Your task to perform on an android device: uninstall "Microsoft Outlook" Image 0: 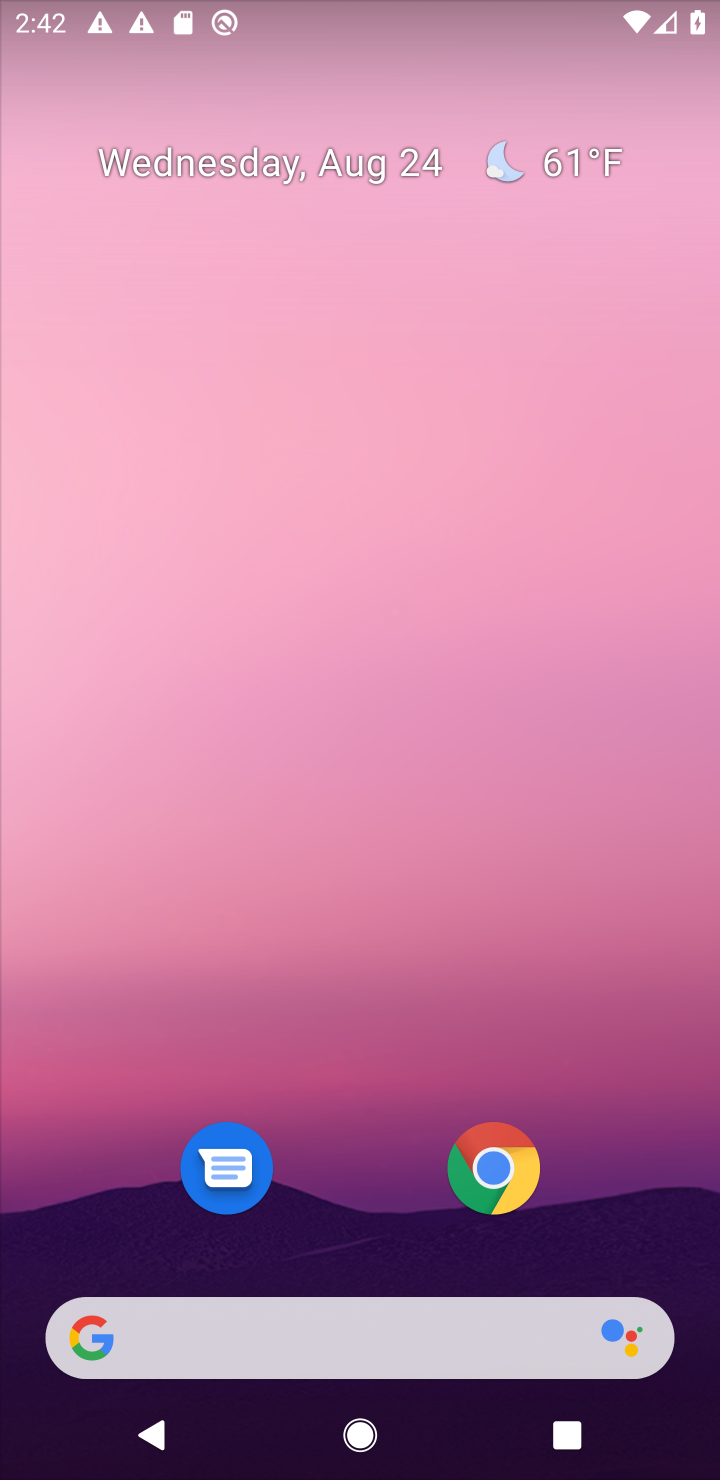
Step 0: drag from (656, 1195) to (567, 194)
Your task to perform on an android device: uninstall "Microsoft Outlook" Image 1: 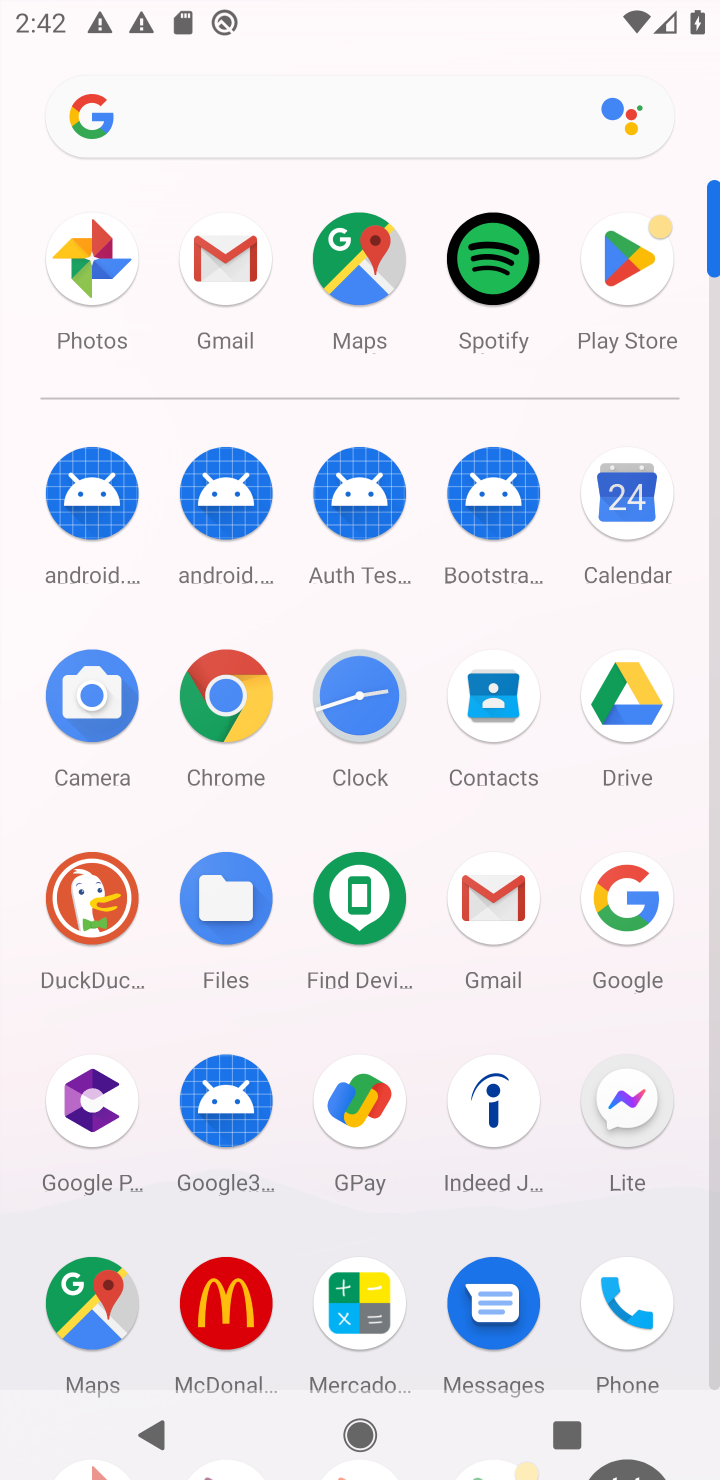
Step 1: click (713, 1301)
Your task to perform on an android device: uninstall "Microsoft Outlook" Image 2: 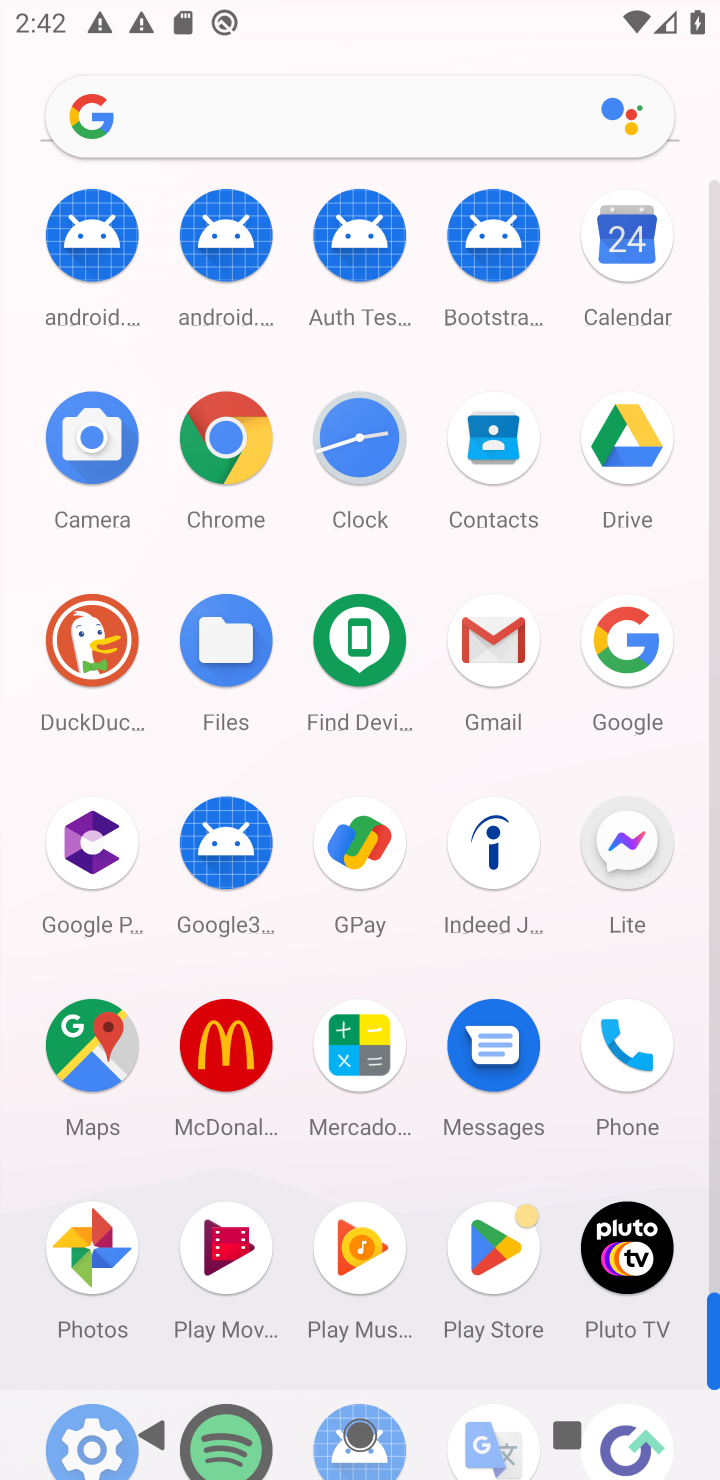
Step 2: click (501, 1241)
Your task to perform on an android device: uninstall "Microsoft Outlook" Image 3: 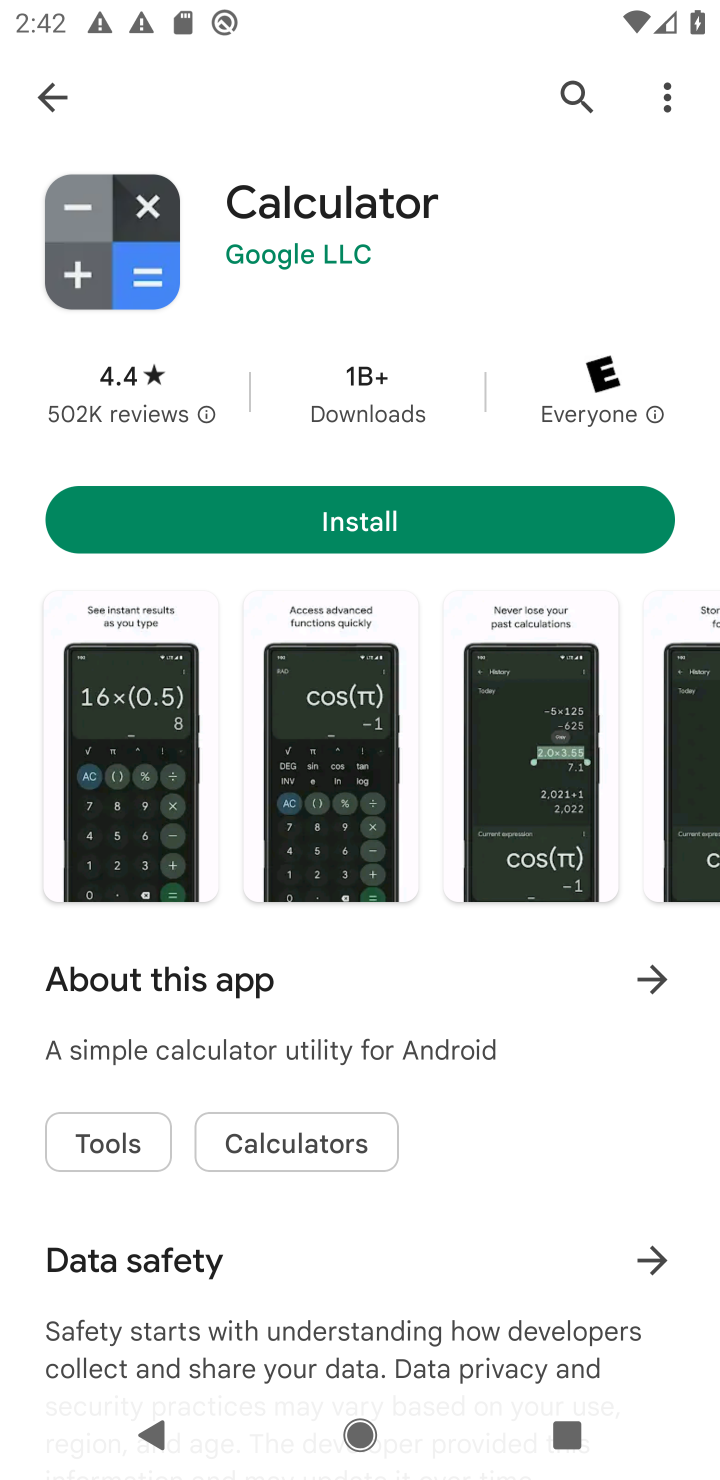
Step 3: click (573, 94)
Your task to perform on an android device: uninstall "Microsoft Outlook" Image 4: 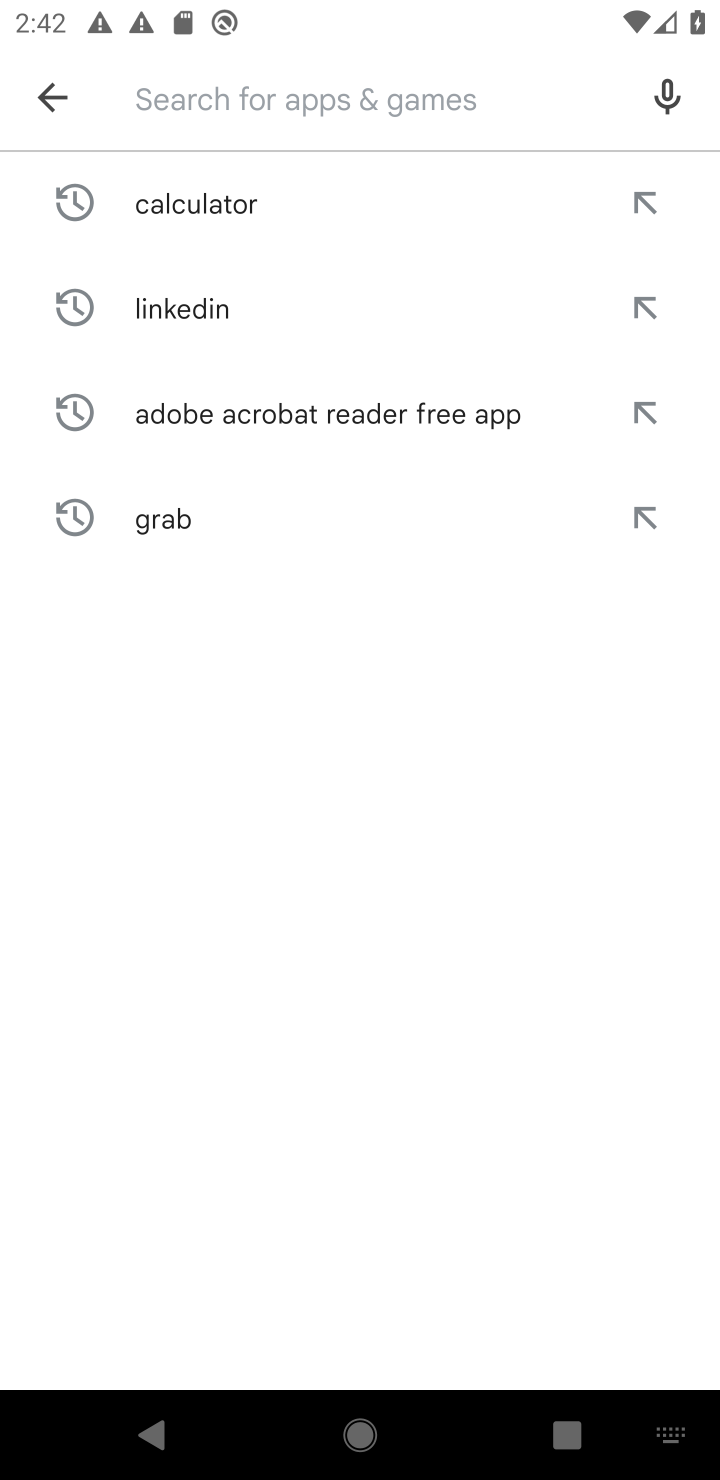
Step 4: type "Microsoft Outlook"
Your task to perform on an android device: uninstall "Microsoft Outlook" Image 5: 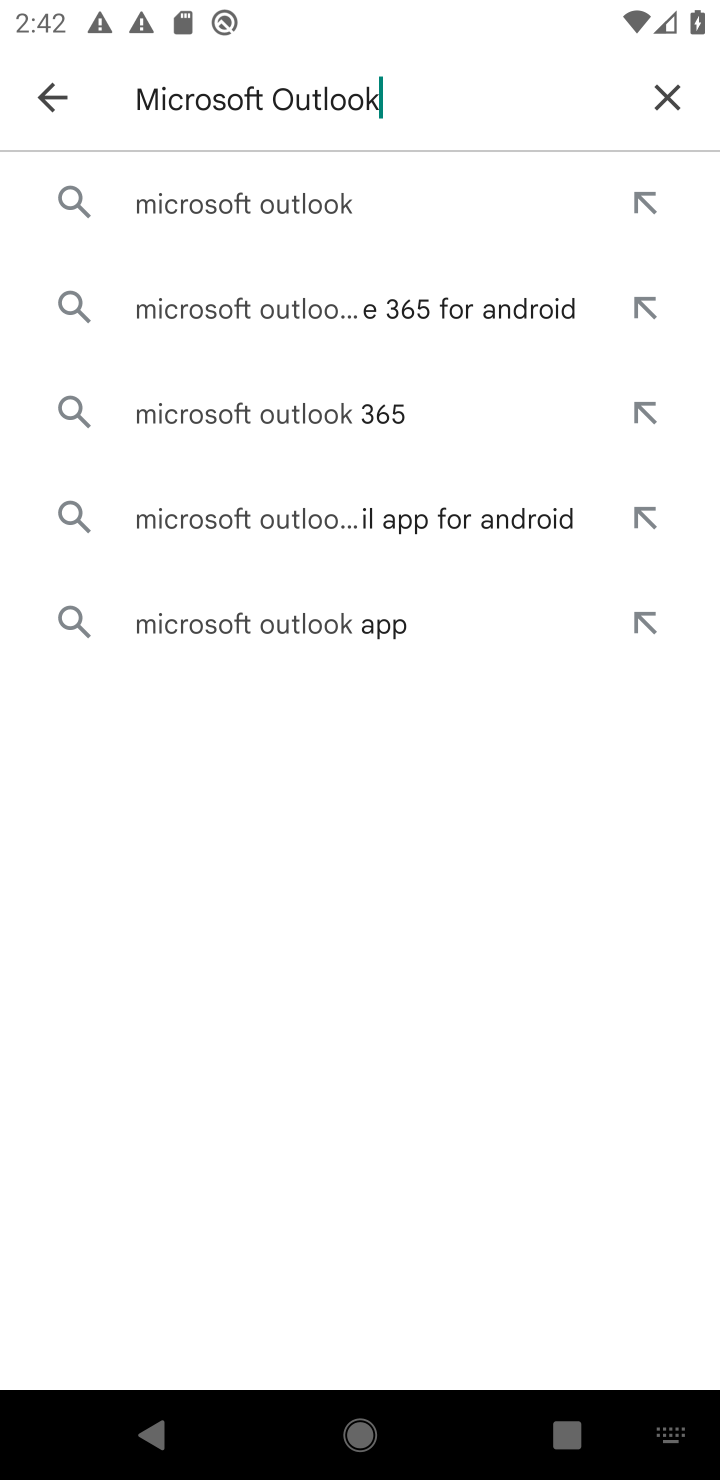
Step 5: click (212, 200)
Your task to perform on an android device: uninstall "Microsoft Outlook" Image 6: 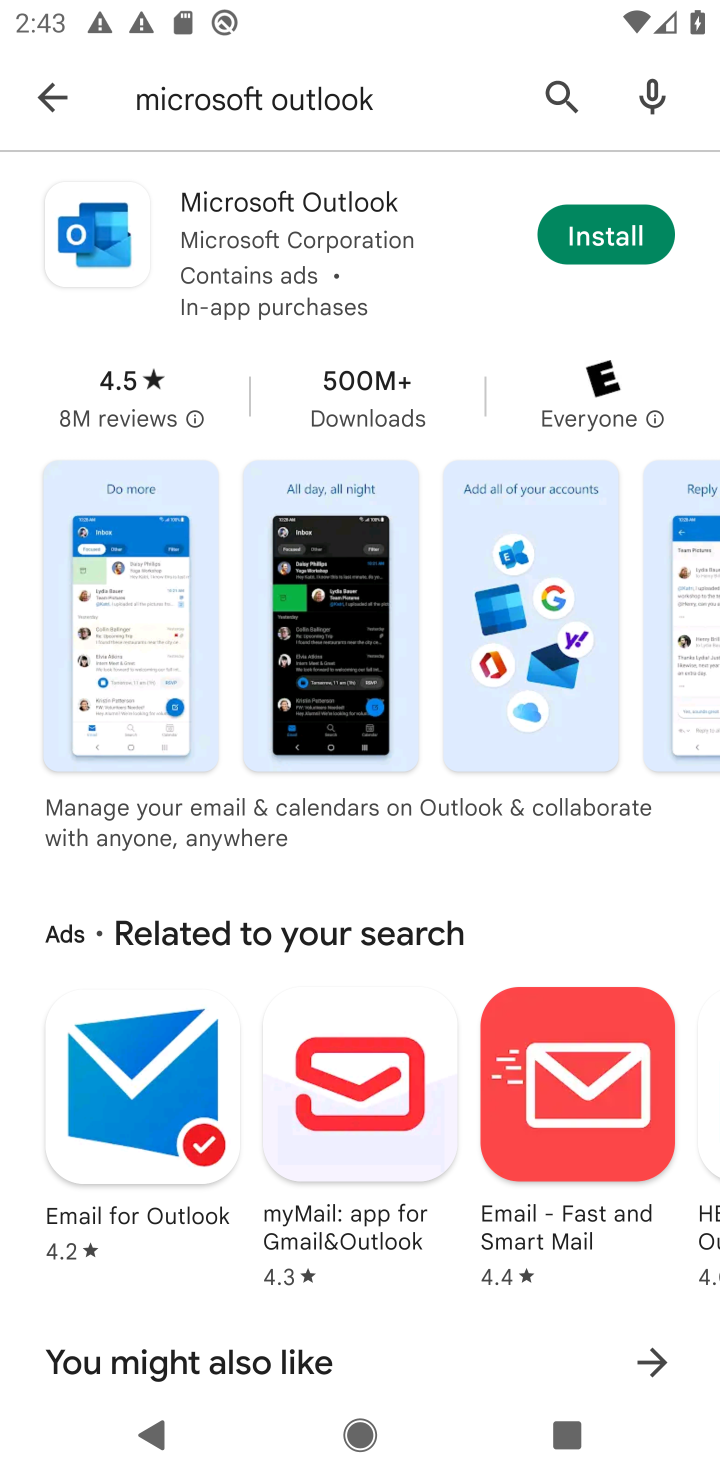
Step 6: click (221, 210)
Your task to perform on an android device: uninstall "Microsoft Outlook" Image 7: 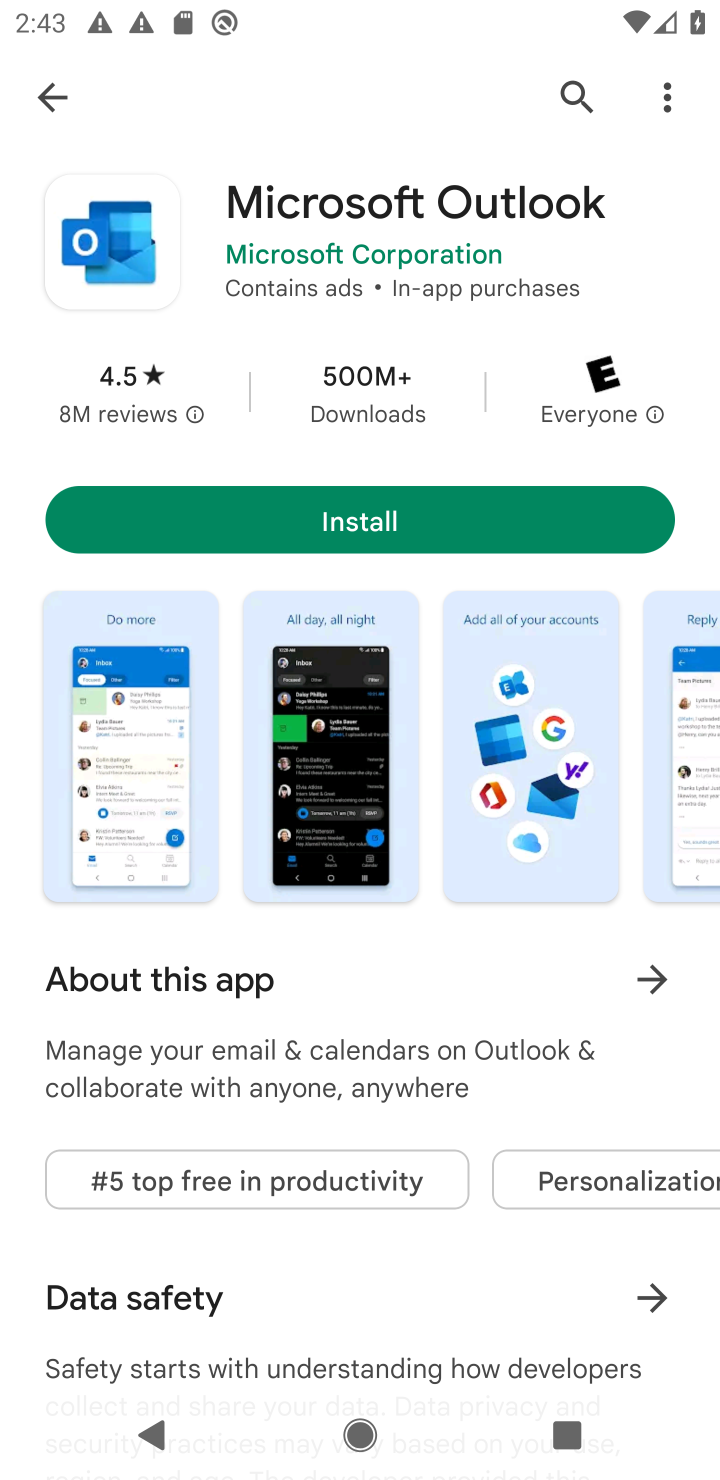
Step 7: click (333, 533)
Your task to perform on an android device: uninstall "Microsoft Outlook" Image 8: 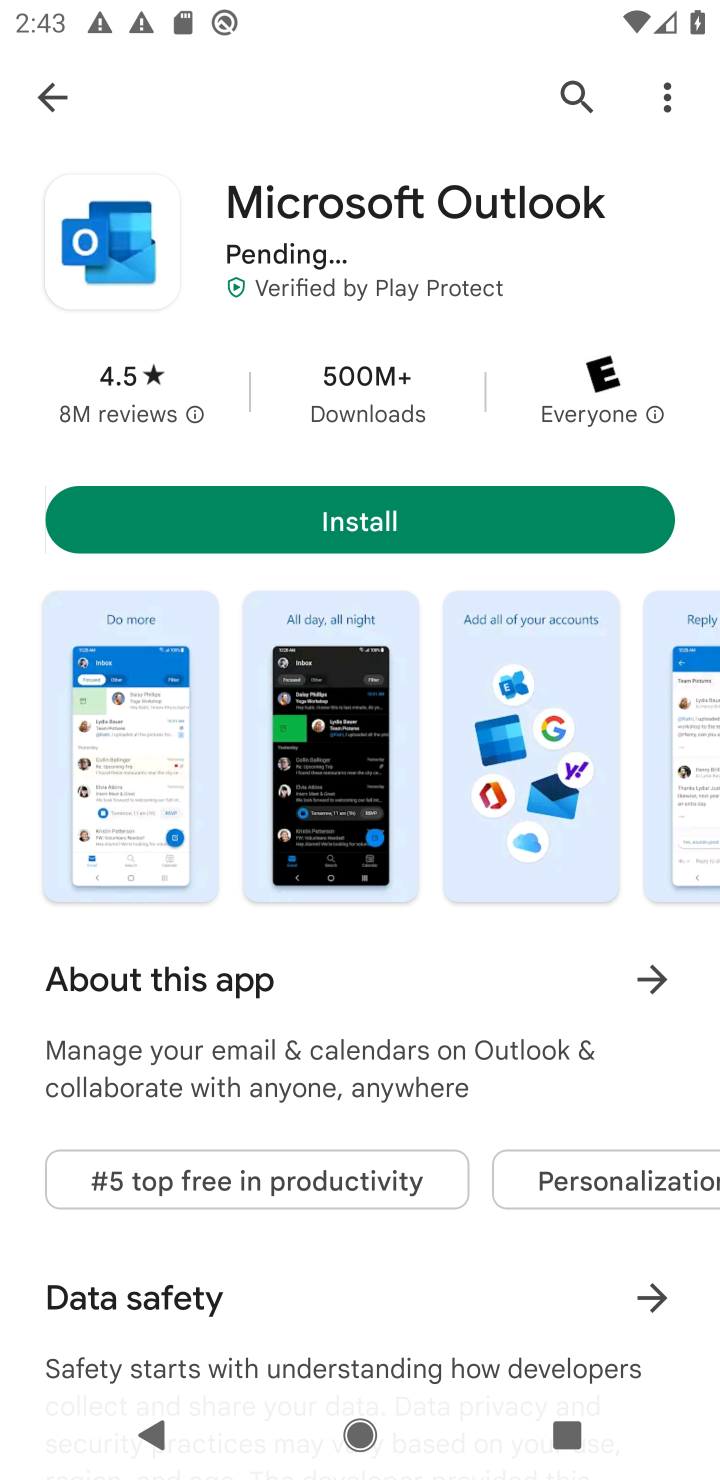
Step 8: click (333, 533)
Your task to perform on an android device: uninstall "Microsoft Outlook" Image 9: 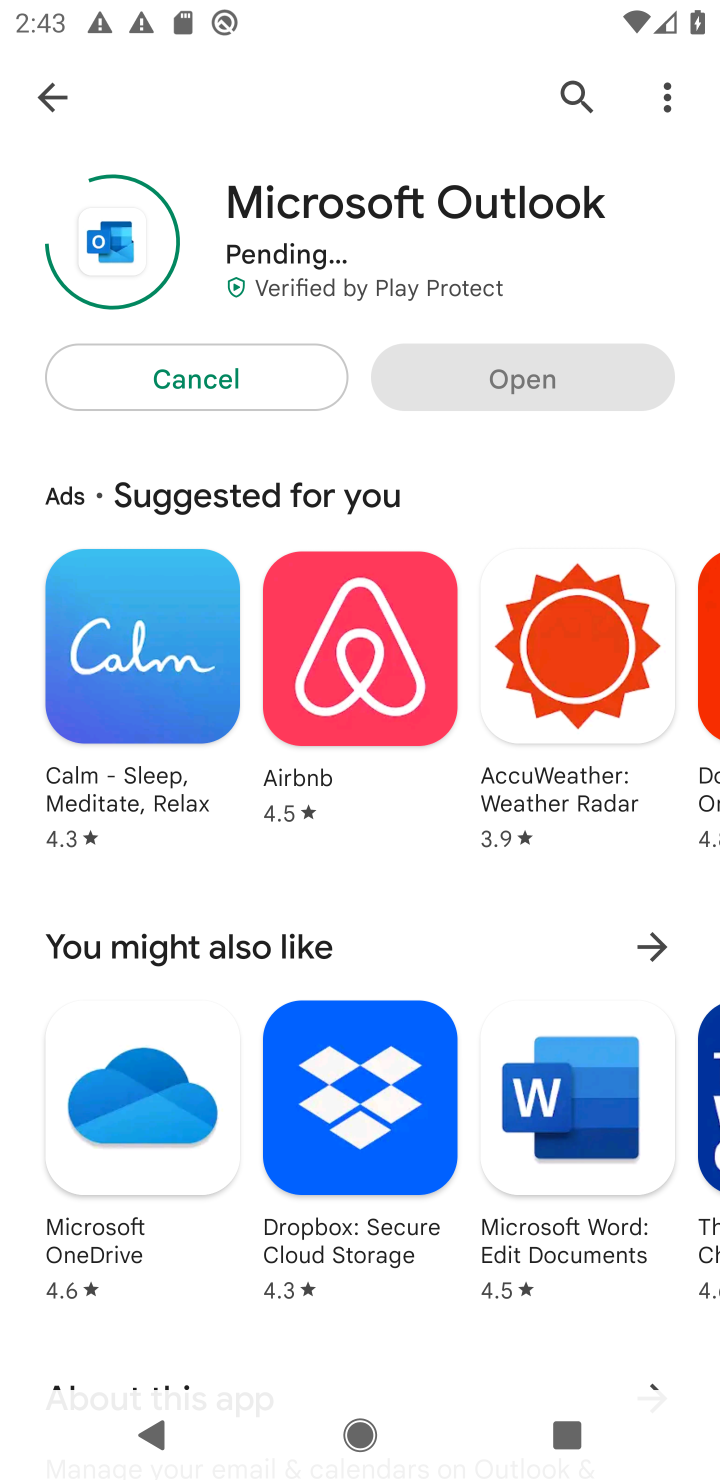
Step 9: click (219, 375)
Your task to perform on an android device: uninstall "Microsoft Outlook" Image 10: 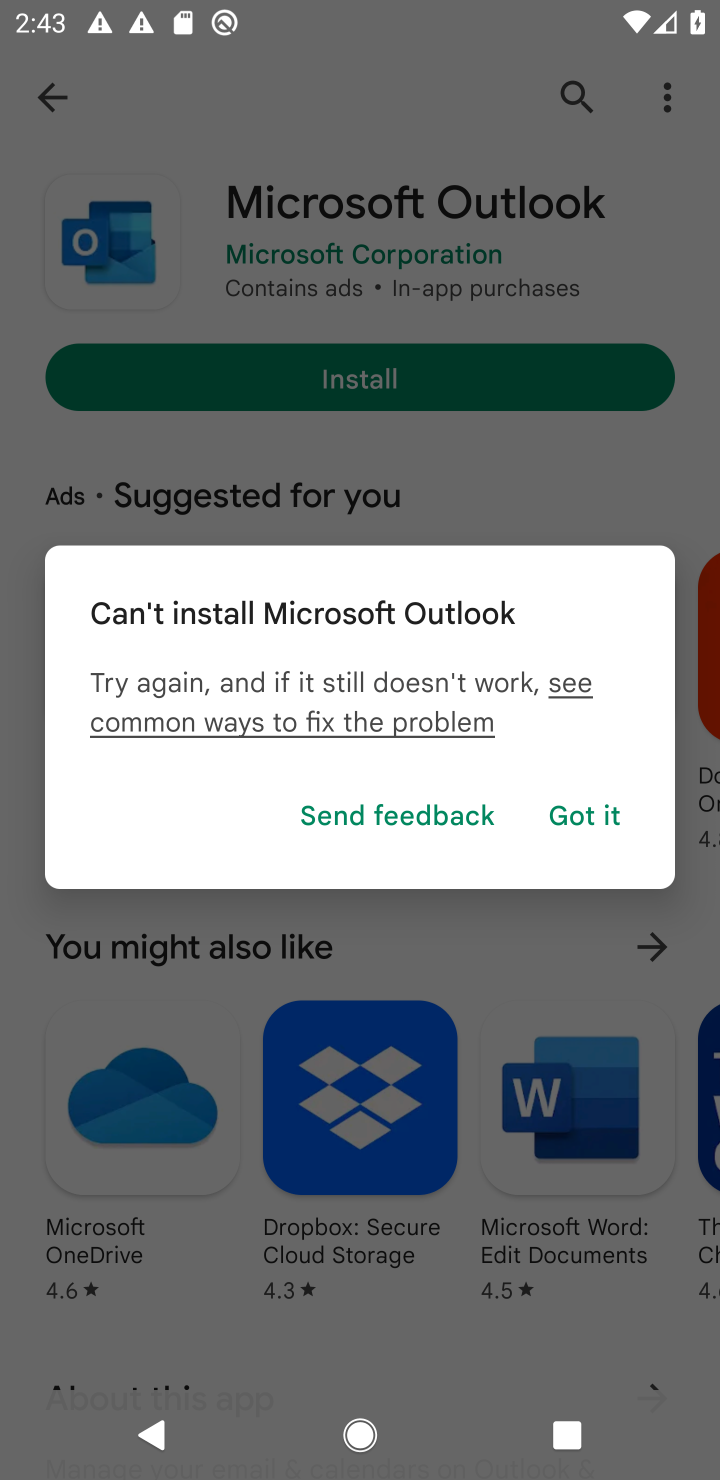
Step 10: click (573, 820)
Your task to perform on an android device: uninstall "Microsoft Outlook" Image 11: 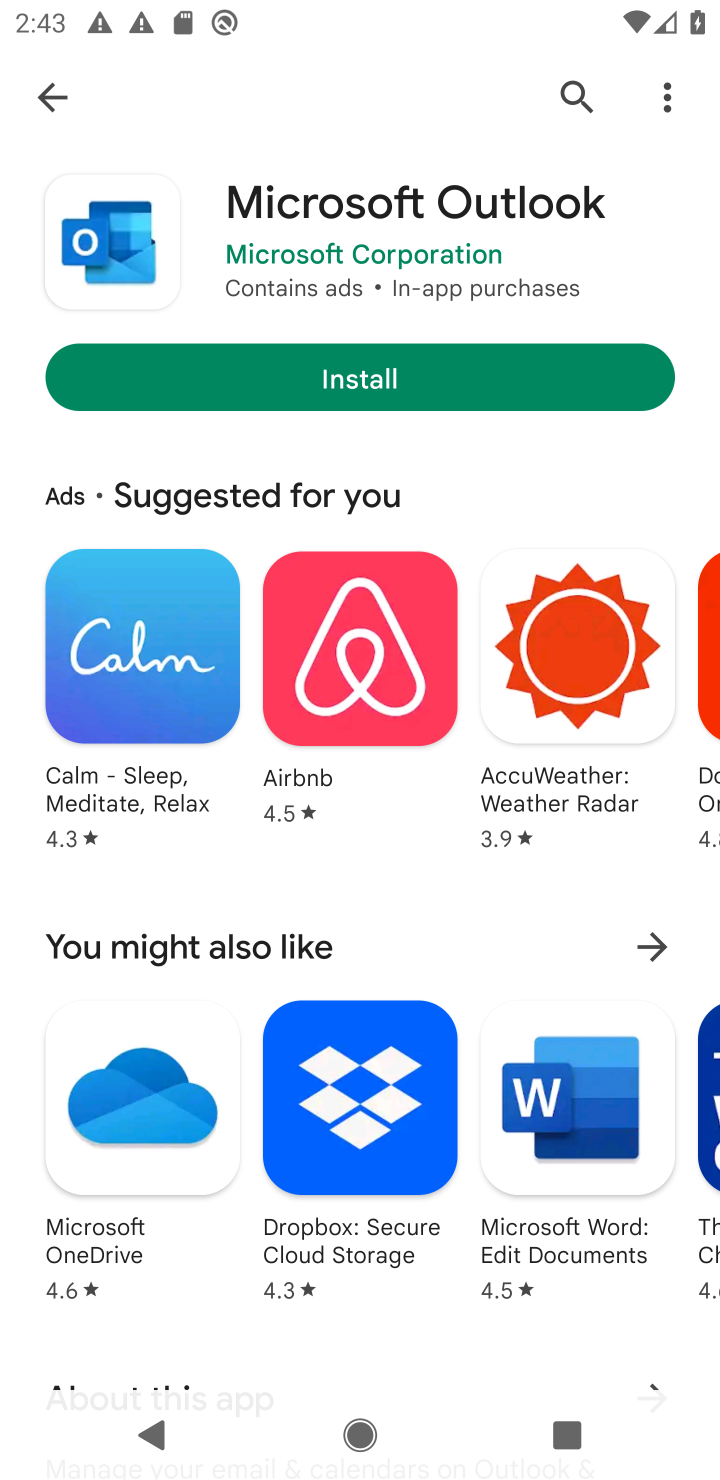
Step 11: task complete